Your task to perform on an android device: Show me the best rated 42 inch TV on Walmart. Image 0: 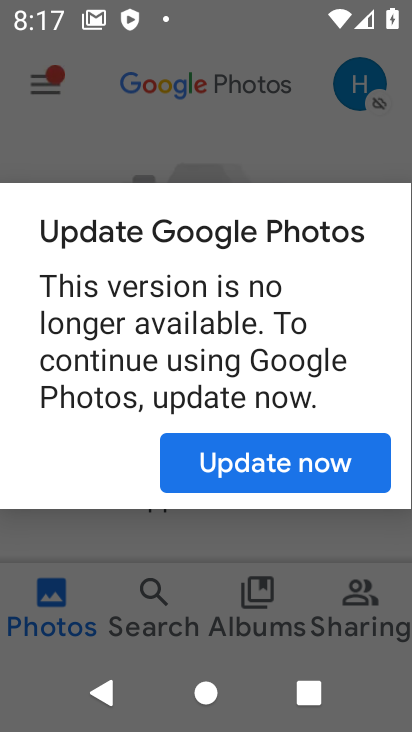
Step 0: press home button
Your task to perform on an android device: Show me the best rated 42 inch TV on Walmart. Image 1: 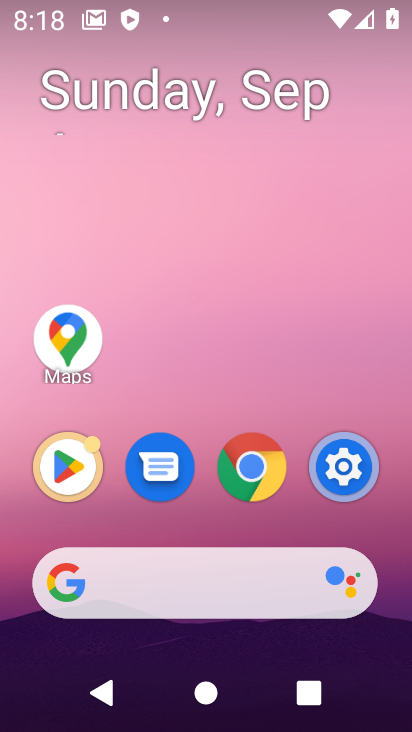
Step 1: click (249, 468)
Your task to perform on an android device: Show me the best rated 42 inch TV on Walmart. Image 2: 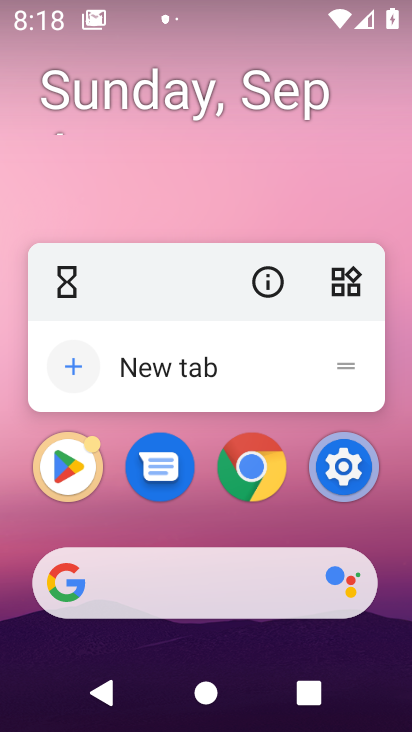
Step 2: click (259, 477)
Your task to perform on an android device: Show me the best rated 42 inch TV on Walmart. Image 3: 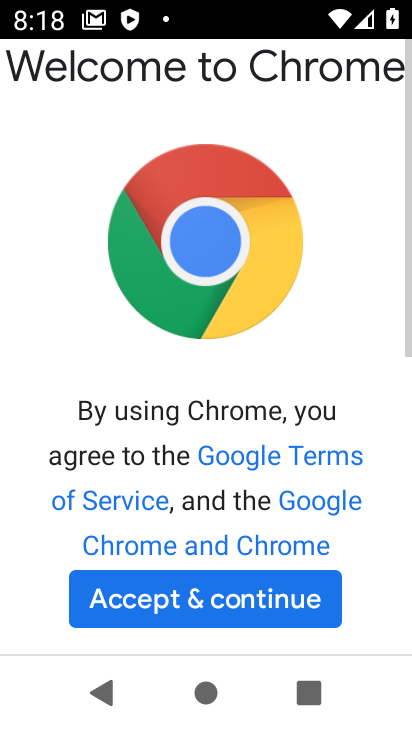
Step 3: click (291, 611)
Your task to perform on an android device: Show me the best rated 42 inch TV on Walmart. Image 4: 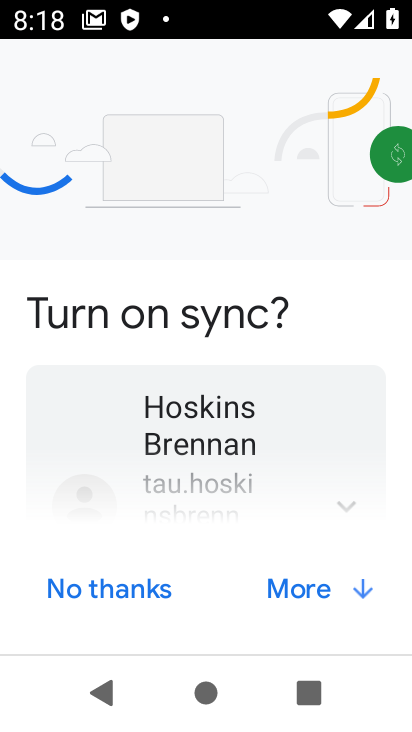
Step 4: click (309, 592)
Your task to perform on an android device: Show me the best rated 42 inch TV on Walmart. Image 5: 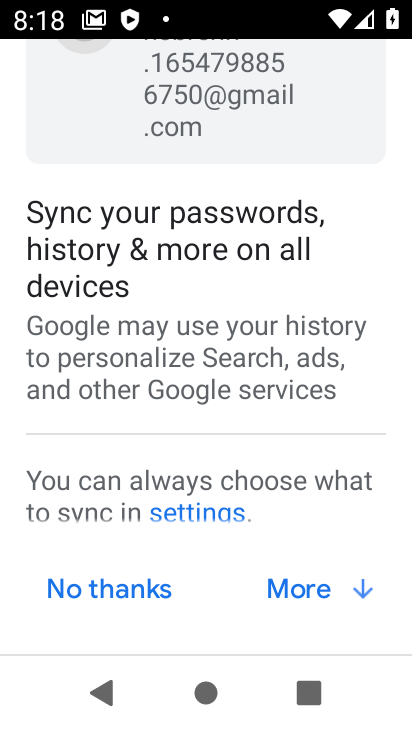
Step 5: click (298, 586)
Your task to perform on an android device: Show me the best rated 42 inch TV on Walmart. Image 6: 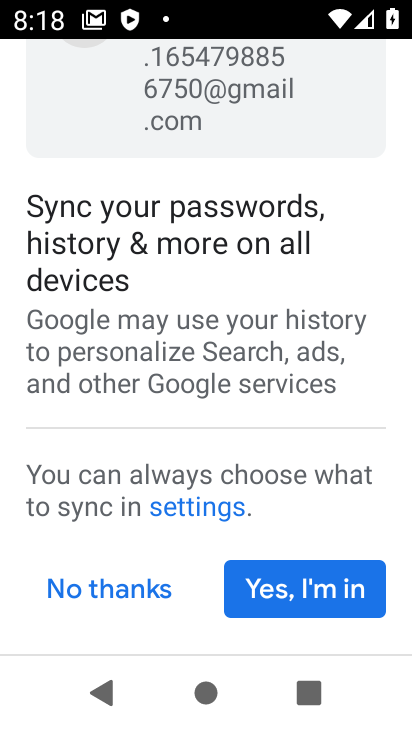
Step 6: click (312, 588)
Your task to perform on an android device: Show me the best rated 42 inch TV on Walmart. Image 7: 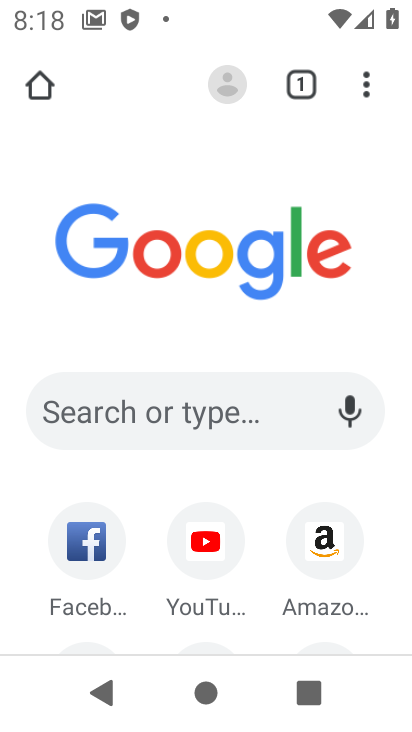
Step 7: click (105, 414)
Your task to perform on an android device: Show me the best rated 42 inch TV on Walmart. Image 8: 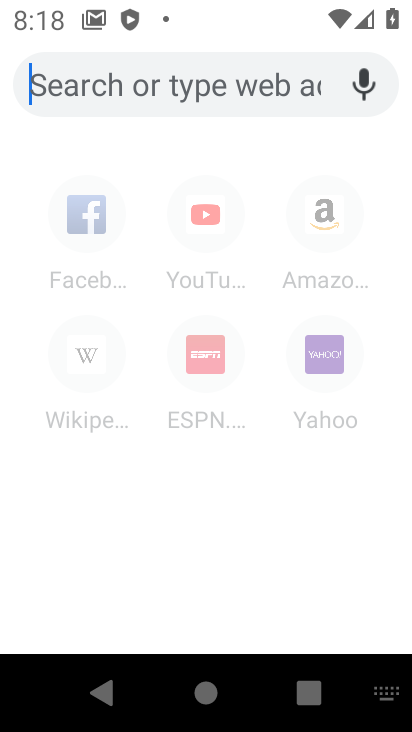
Step 8: type "walmart"
Your task to perform on an android device: Show me the best rated 42 inch TV on Walmart. Image 9: 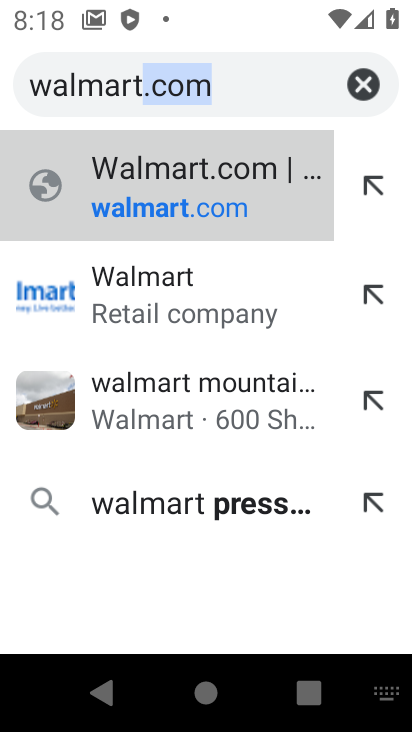
Step 9: type ""
Your task to perform on an android device: Show me the best rated 42 inch TV on Walmart. Image 10: 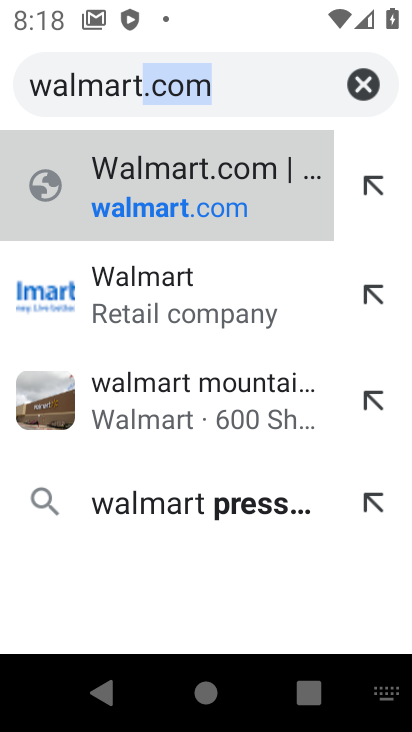
Step 10: click (210, 301)
Your task to perform on an android device: Show me the best rated 42 inch TV on Walmart. Image 11: 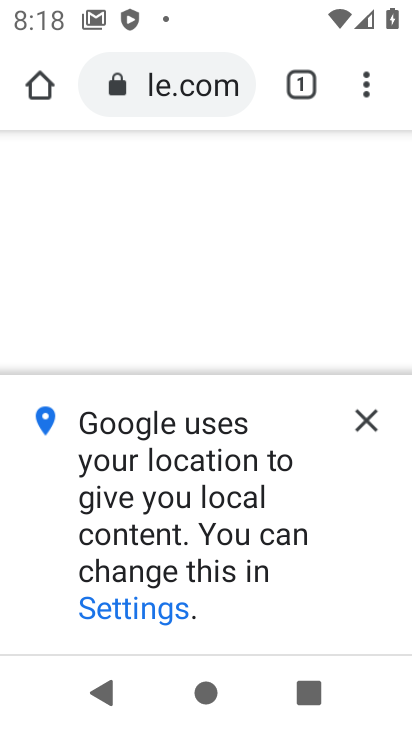
Step 11: click (368, 421)
Your task to perform on an android device: Show me the best rated 42 inch TV on Walmart. Image 12: 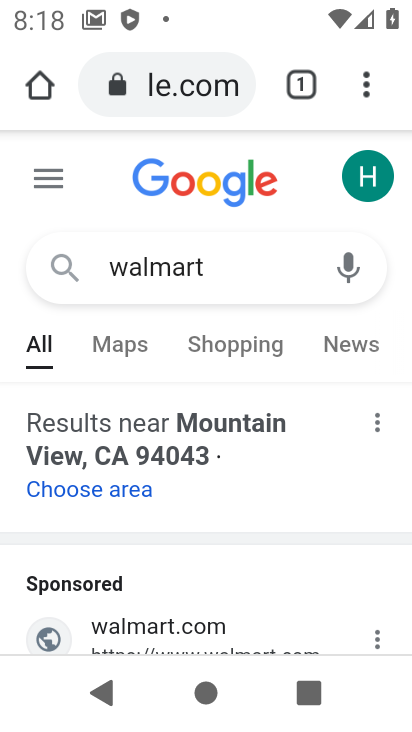
Step 12: drag from (397, 488) to (403, 289)
Your task to perform on an android device: Show me the best rated 42 inch TV on Walmart. Image 13: 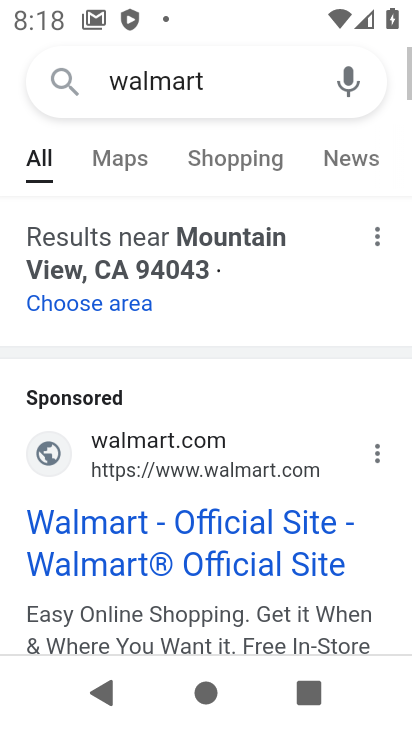
Step 13: drag from (349, 537) to (405, 177)
Your task to perform on an android device: Show me the best rated 42 inch TV on Walmart. Image 14: 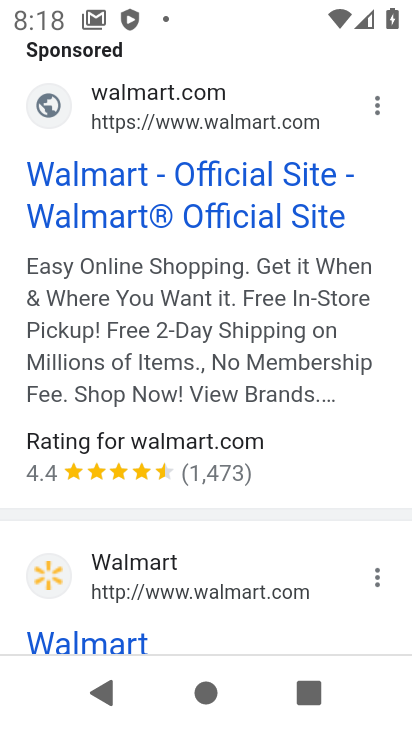
Step 14: drag from (351, 564) to (397, 209)
Your task to perform on an android device: Show me the best rated 42 inch TV on Walmart. Image 15: 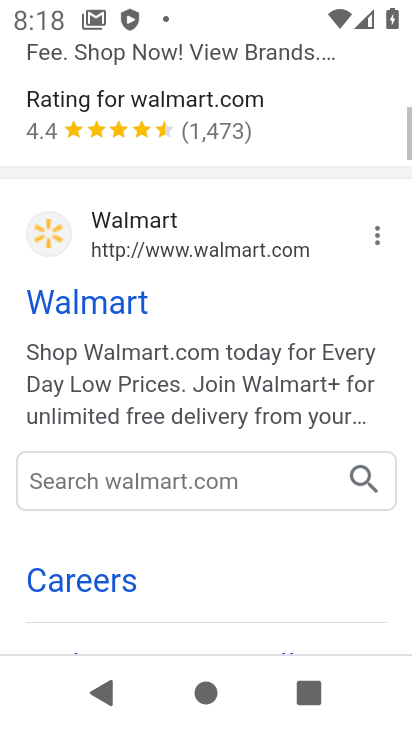
Step 15: click (80, 298)
Your task to perform on an android device: Show me the best rated 42 inch TV on Walmart. Image 16: 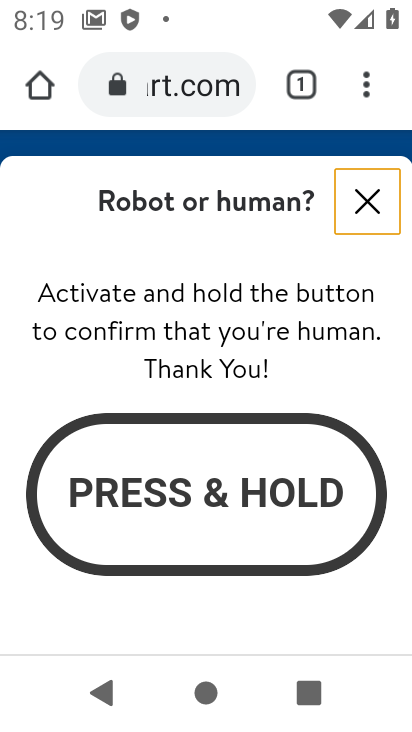
Step 16: click (359, 192)
Your task to perform on an android device: Show me the best rated 42 inch TV on Walmart. Image 17: 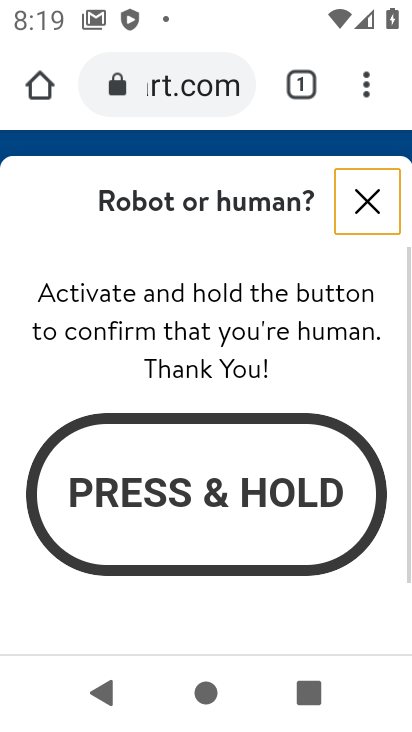
Step 17: click (365, 205)
Your task to perform on an android device: Show me the best rated 42 inch TV on Walmart. Image 18: 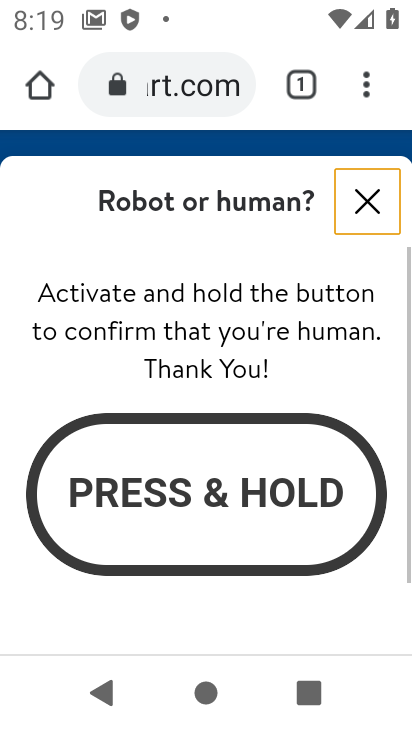
Step 18: drag from (307, 496) to (359, 166)
Your task to perform on an android device: Show me the best rated 42 inch TV on Walmart. Image 19: 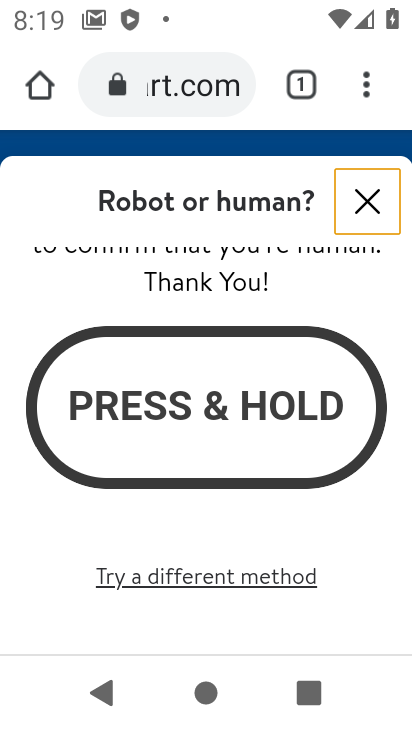
Step 19: drag from (349, 470) to (411, 274)
Your task to perform on an android device: Show me the best rated 42 inch TV on Walmart. Image 20: 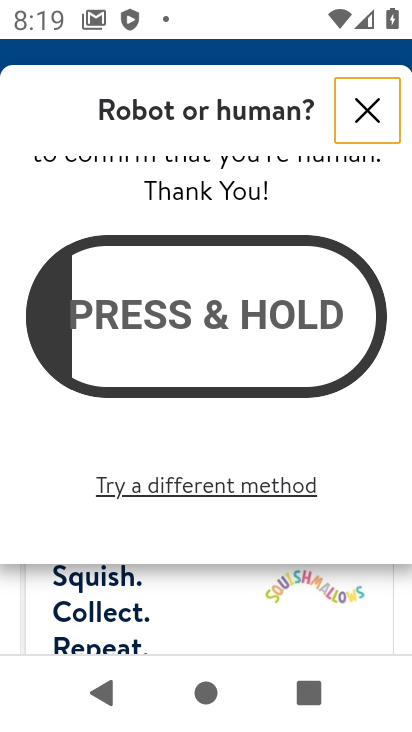
Step 20: drag from (351, 481) to (407, 167)
Your task to perform on an android device: Show me the best rated 42 inch TV on Walmart. Image 21: 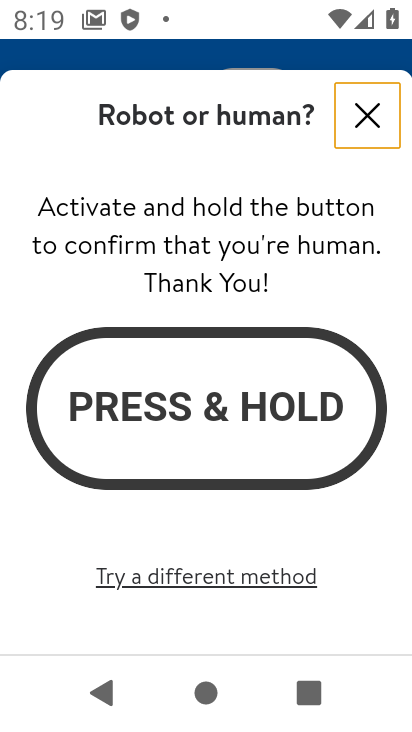
Step 21: click (364, 116)
Your task to perform on an android device: Show me the best rated 42 inch TV on Walmart. Image 22: 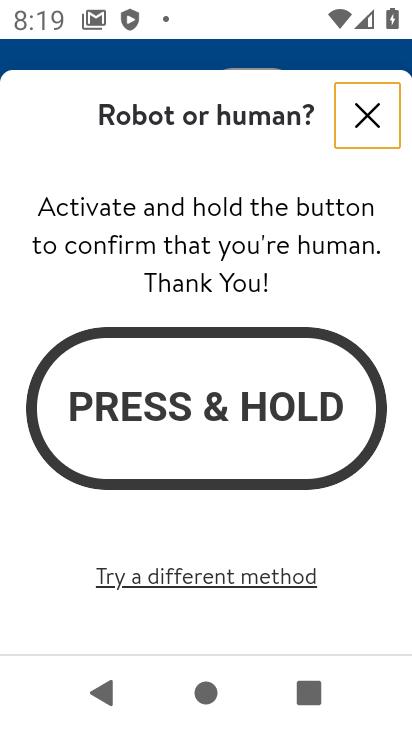
Step 22: click (362, 116)
Your task to perform on an android device: Show me the best rated 42 inch TV on Walmart. Image 23: 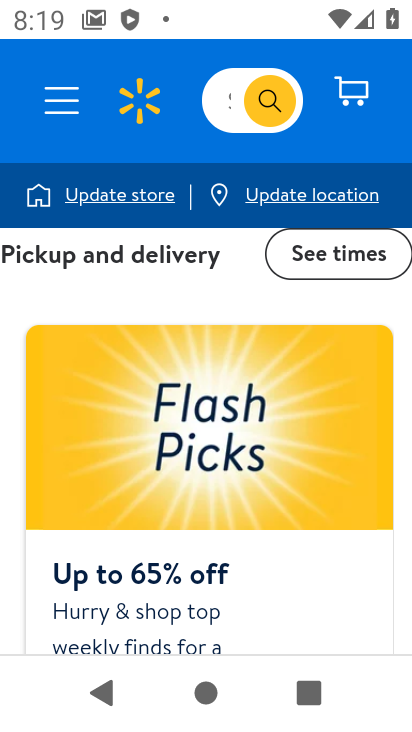
Step 23: click (263, 98)
Your task to perform on an android device: Show me the best rated 42 inch TV on Walmart. Image 24: 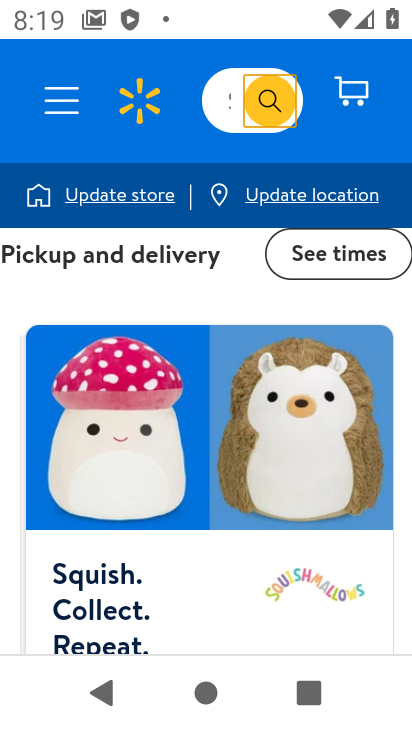
Step 24: click (271, 103)
Your task to perform on an android device: Show me the best rated 42 inch TV on Walmart. Image 25: 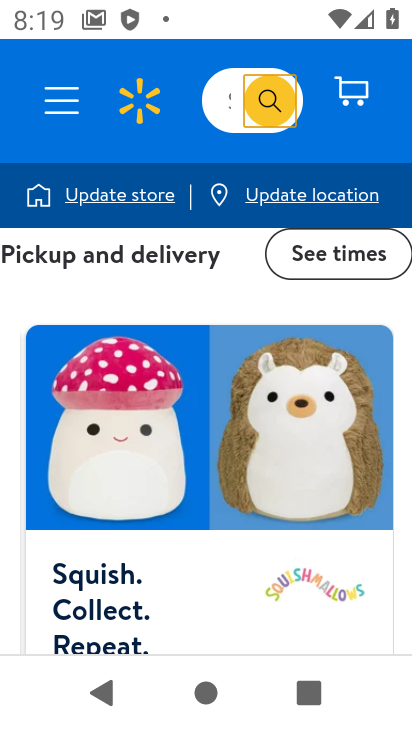
Step 25: drag from (284, 579) to (387, 214)
Your task to perform on an android device: Show me the best rated 42 inch TV on Walmart. Image 26: 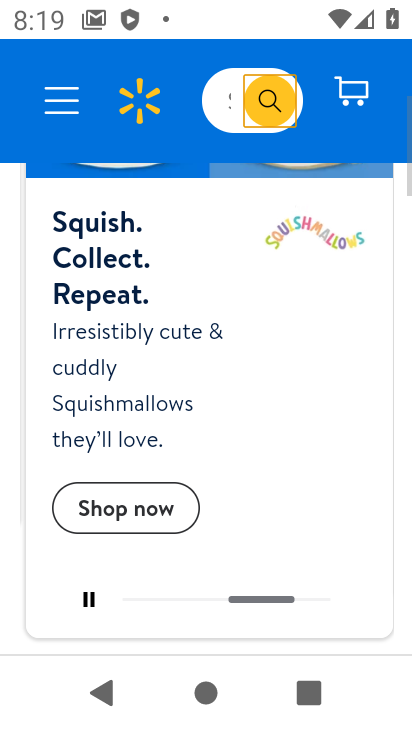
Step 26: drag from (284, 522) to (330, 244)
Your task to perform on an android device: Show me the best rated 42 inch TV on Walmart. Image 27: 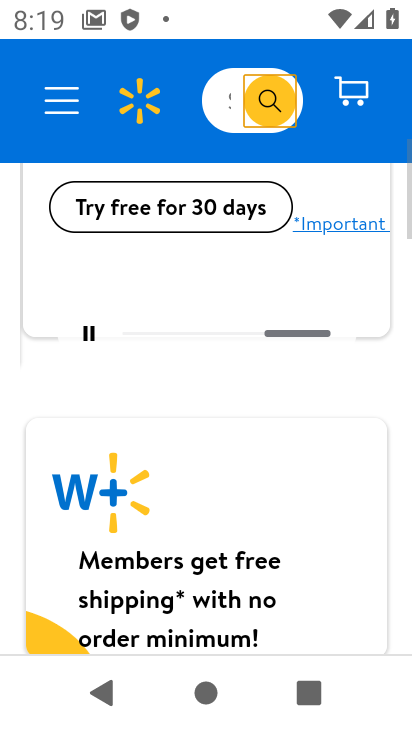
Step 27: drag from (287, 524) to (287, 709)
Your task to perform on an android device: Show me the best rated 42 inch TV on Walmart. Image 28: 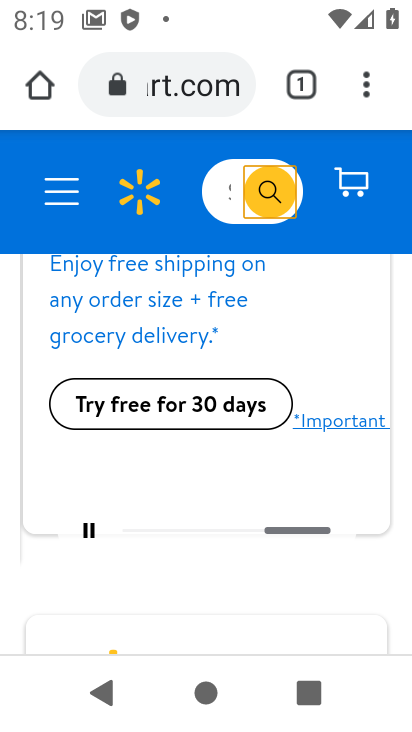
Step 28: click (269, 207)
Your task to perform on an android device: Show me the best rated 42 inch TV on Walmart. Image 29: 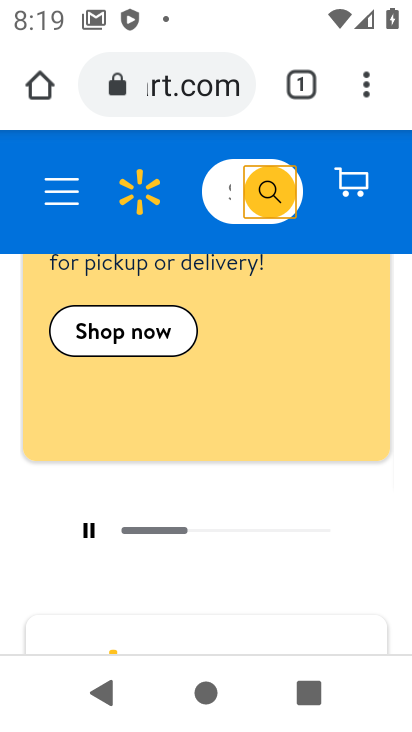
Step 29: click (262, 189)
Your task to perform on an android device: Show me the best rated 42 inch TV on Walmart. Image 30: 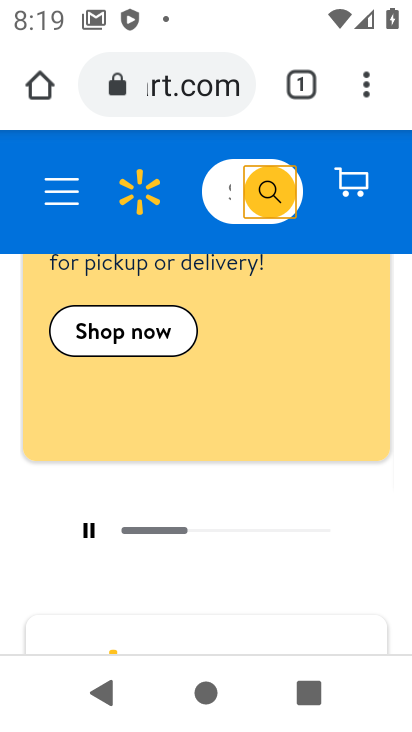
Step 30: click (262, 189)
Your task to perform on an android device: Show me the best rated 42 inch TV on Walmart. Image 31: 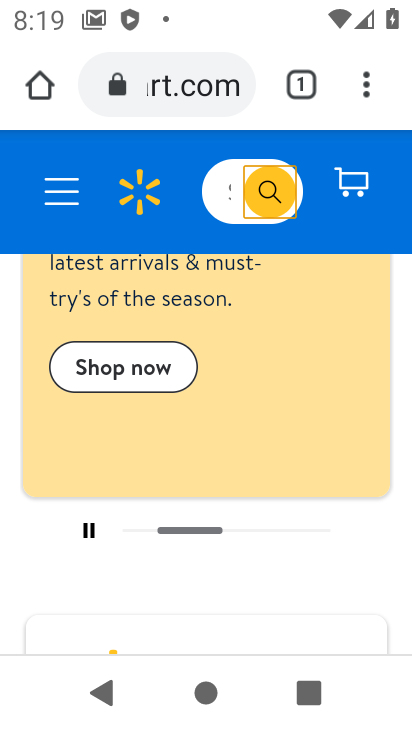
Step 31: drag from (336, 450) to (368, 175)
Your task to perform on an android device: Show me the best rated 42 inch TV on Walmart. Image 32: 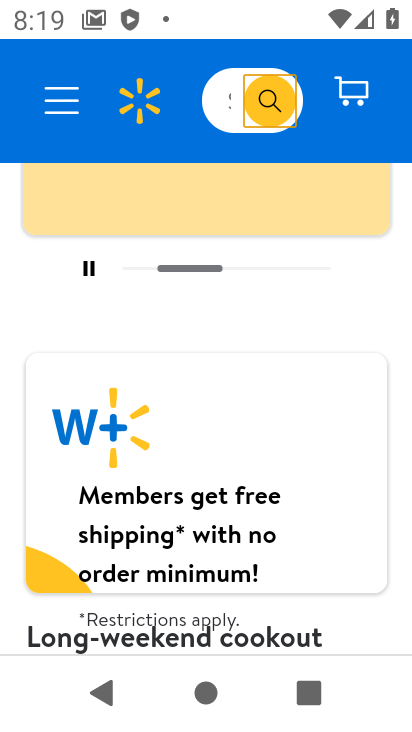
Step 32: click (71, 90)
Your task to perform on an android device: Show me the best rated 42 inch TV on Walmart. Image 33: 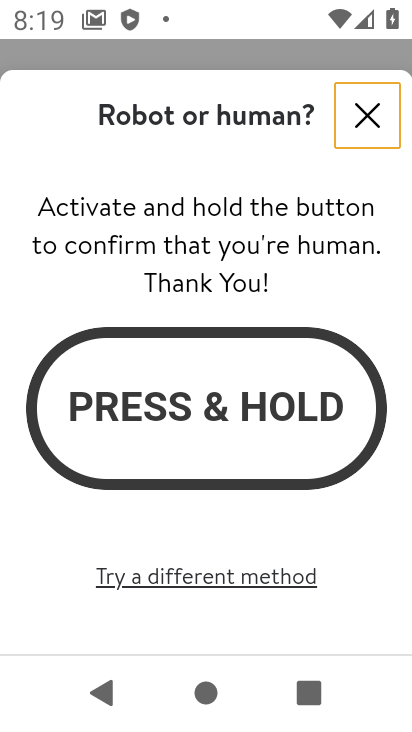
Step 33: click (180, 579)
Your task to perform on an android device: Show me the best rated 42 inch TV on Walmart. Image 34: 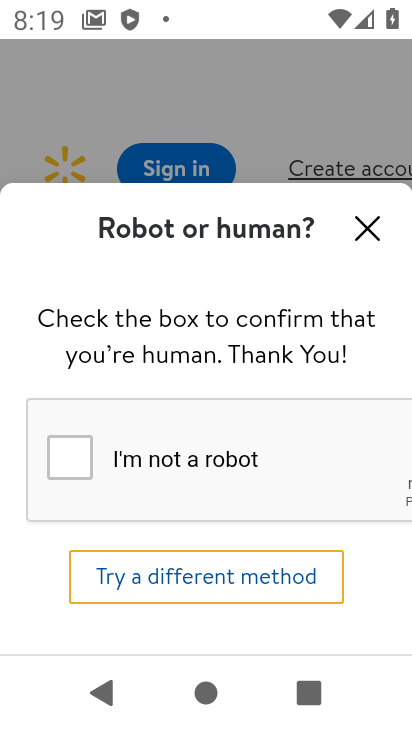
Step 34: click (363, 228)
Your task to perform on an android device: Show me the best rated 42 inch TV on Walmart. Image 35: 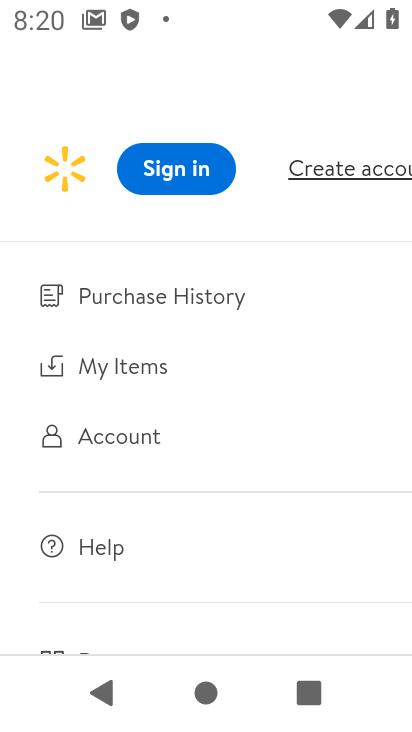
Step 35: task complete